Your task to perform on an android device: change notification settings in the gmail app Image 0: 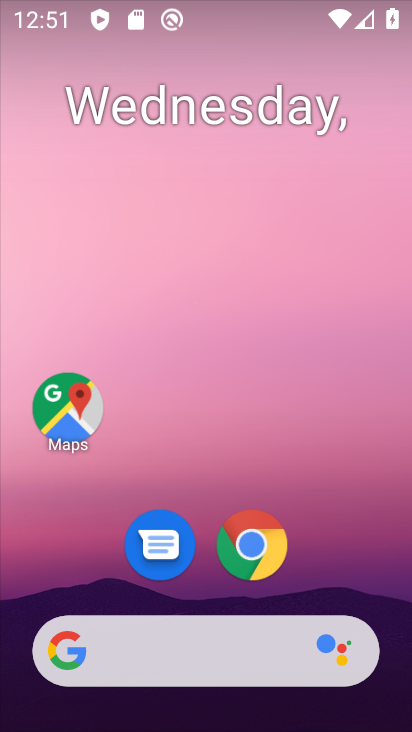
Step 0: drag from (312, 529) to (332, 88)
Your task to perform on an android device: change notification settings in the gmail app Image 1: 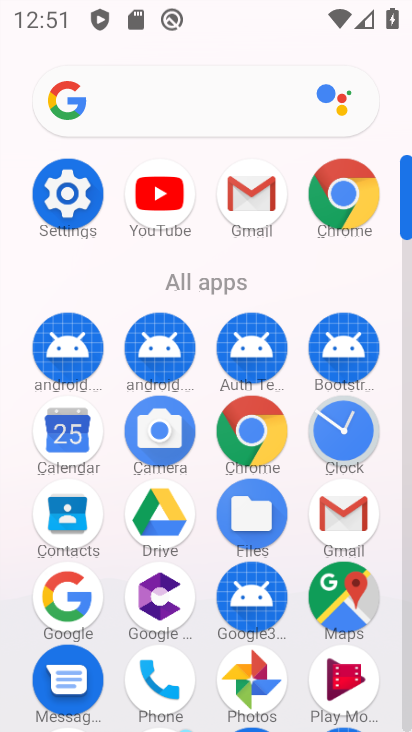
Step 1: click (259, 201)
Your task to perform on an android device: change notification settings in the gmail app Image 2: 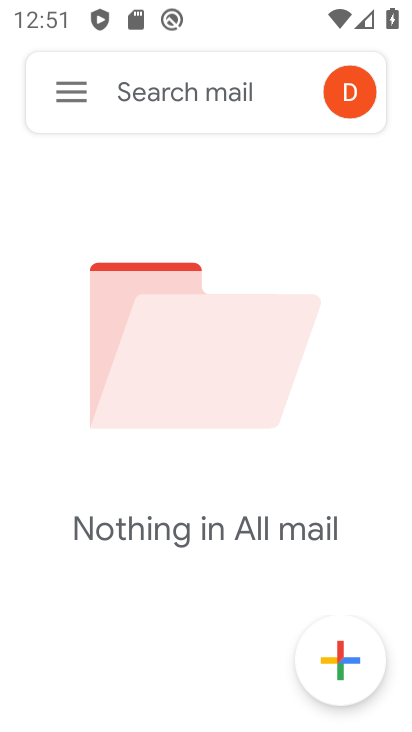
Step 2: click (77, 100)
Your task to perform on an android device: change notification settings in the gmail app Image 3: 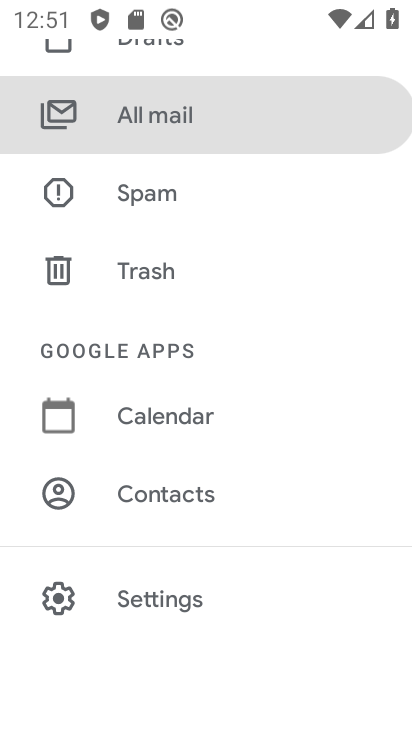
Step 3: click (154, 594)
Your task to perform on an android device: change notification settings in the gmail app Image 4: 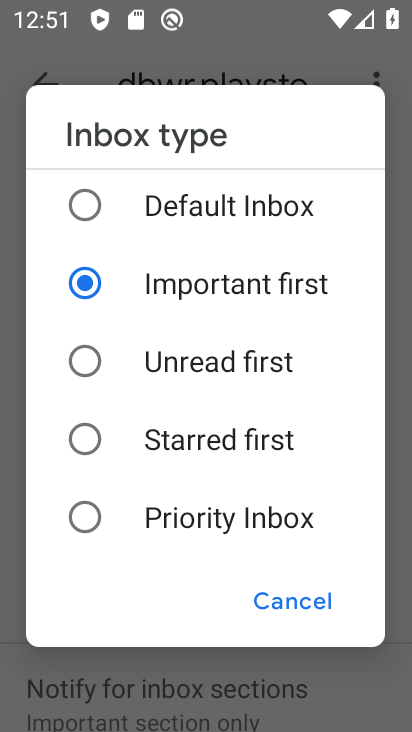
Step 4: click (259, 603)
Your task to perform on an android device: change notification settings in the gmail app Image 5: 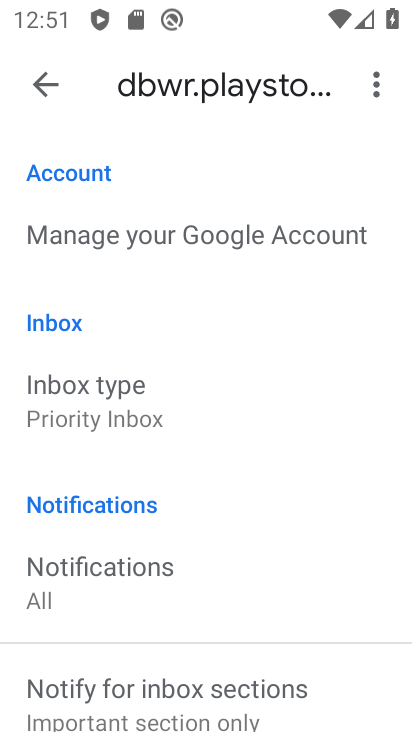
Step 5: drag from (120, 633) to (353, 241)
Your task to perform on an android device: change notification settings in the gmail app Image 6: 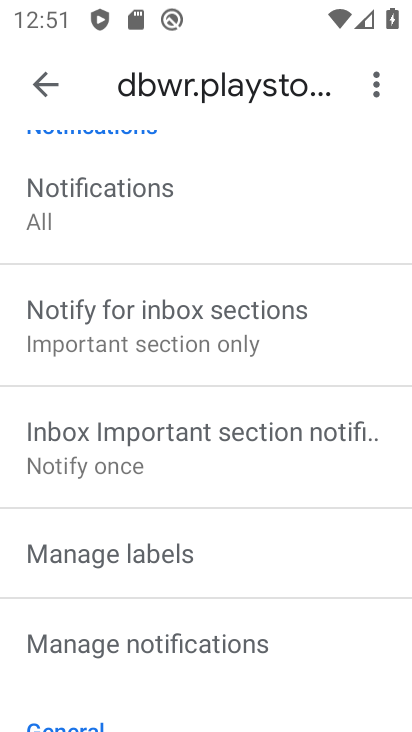
Step 6: click (174, 647)
Your task to perform on an android device: change notification settings in the gmail app Image 7: 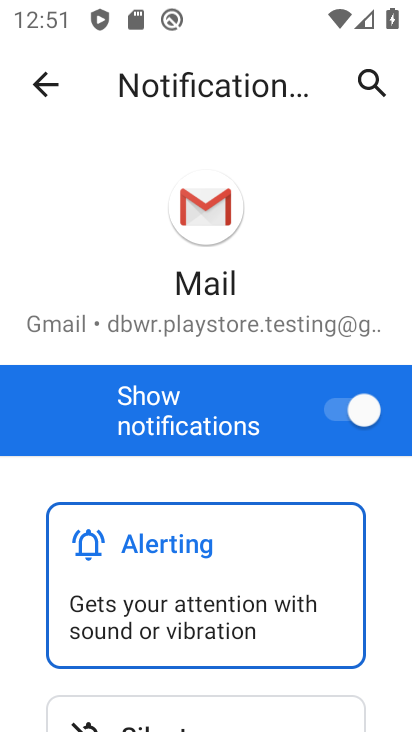
Step 7: click (347, 404)
Your task to perform on an android device: change notification settings in the gmail app Image 8: 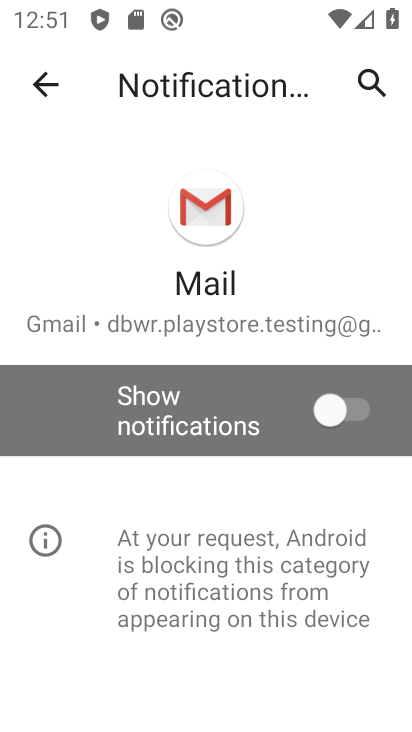
Step 8: task complete